Your task to perform on an android device: open app "Microsoft Authenticator" Image 0: 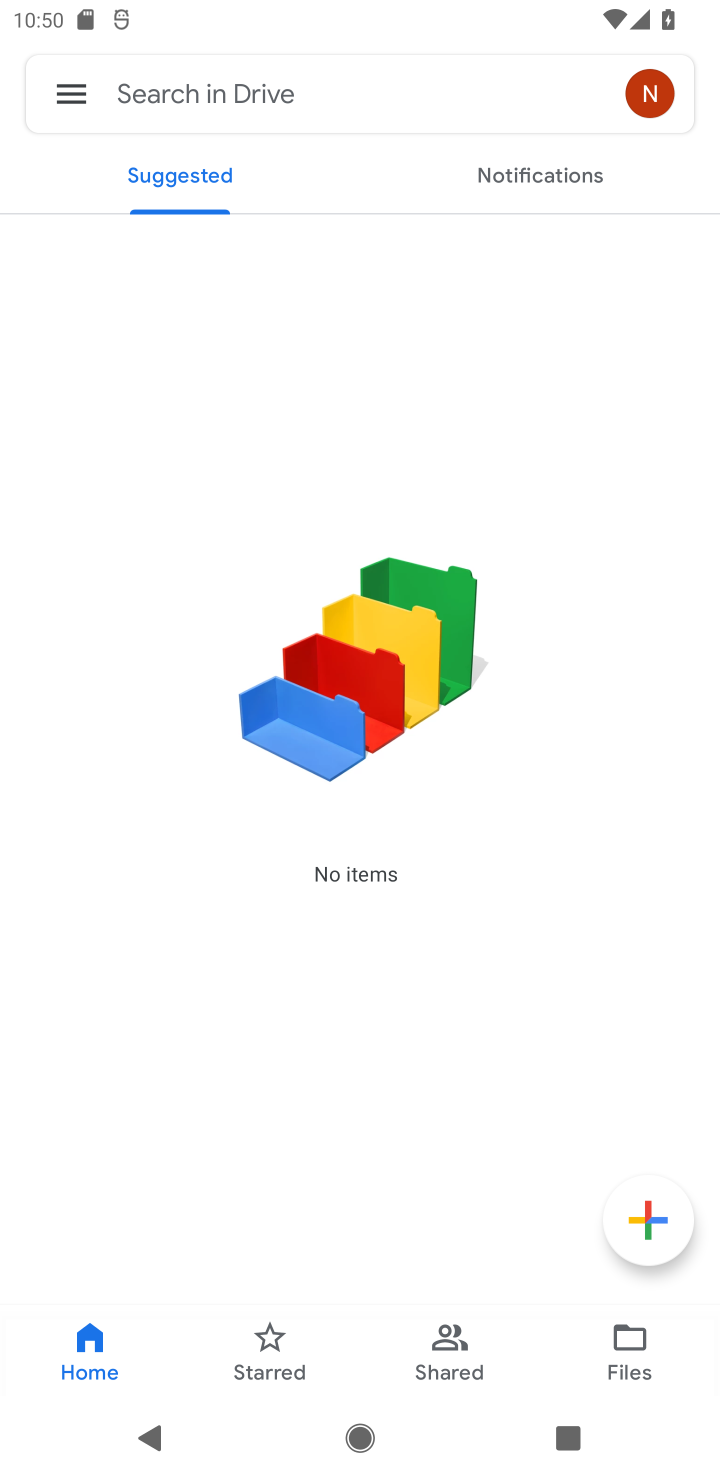
Step 0: press home button
Your task to perform on an android device: open app "Microsoft Authenticator" Image 1: 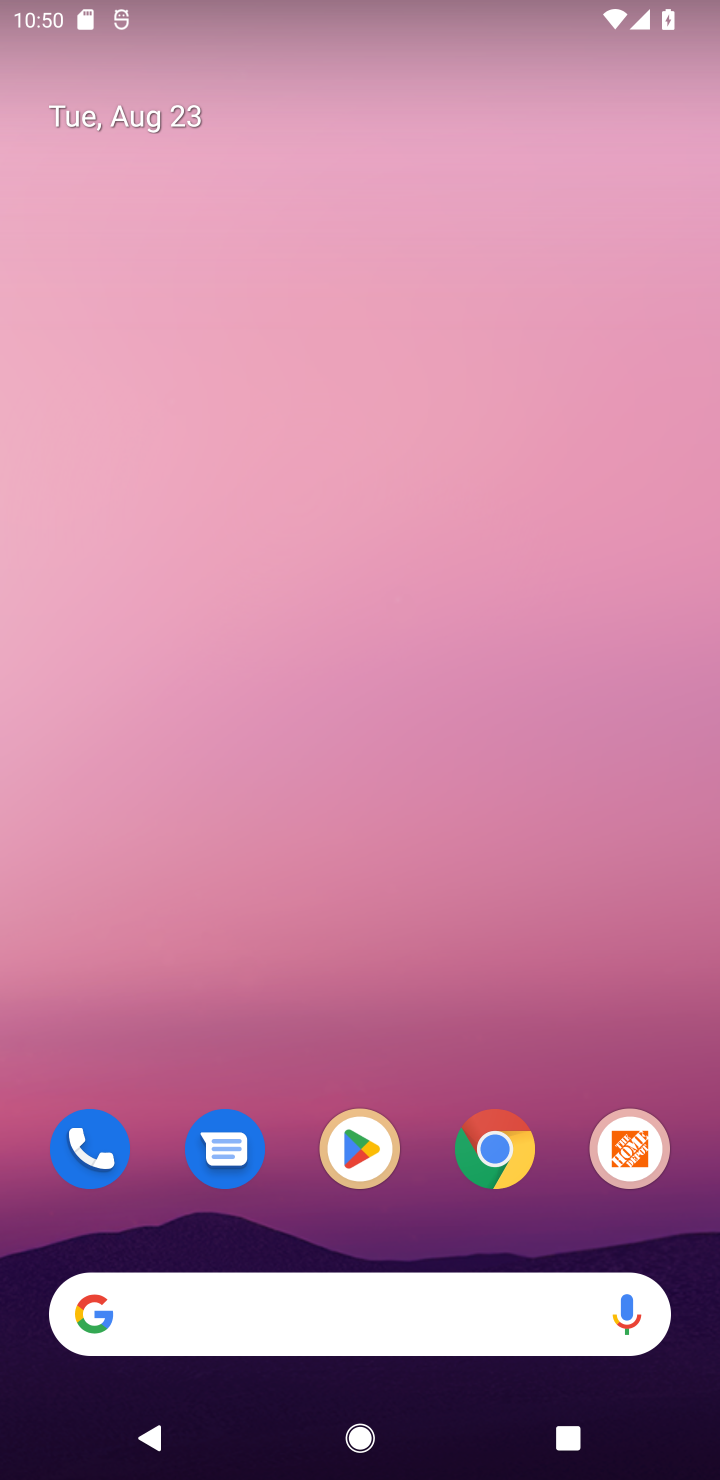
Step 1: click (351, 1139)
Your task to perform on an android device: open app "Microsoft Authenticator" Image 2: 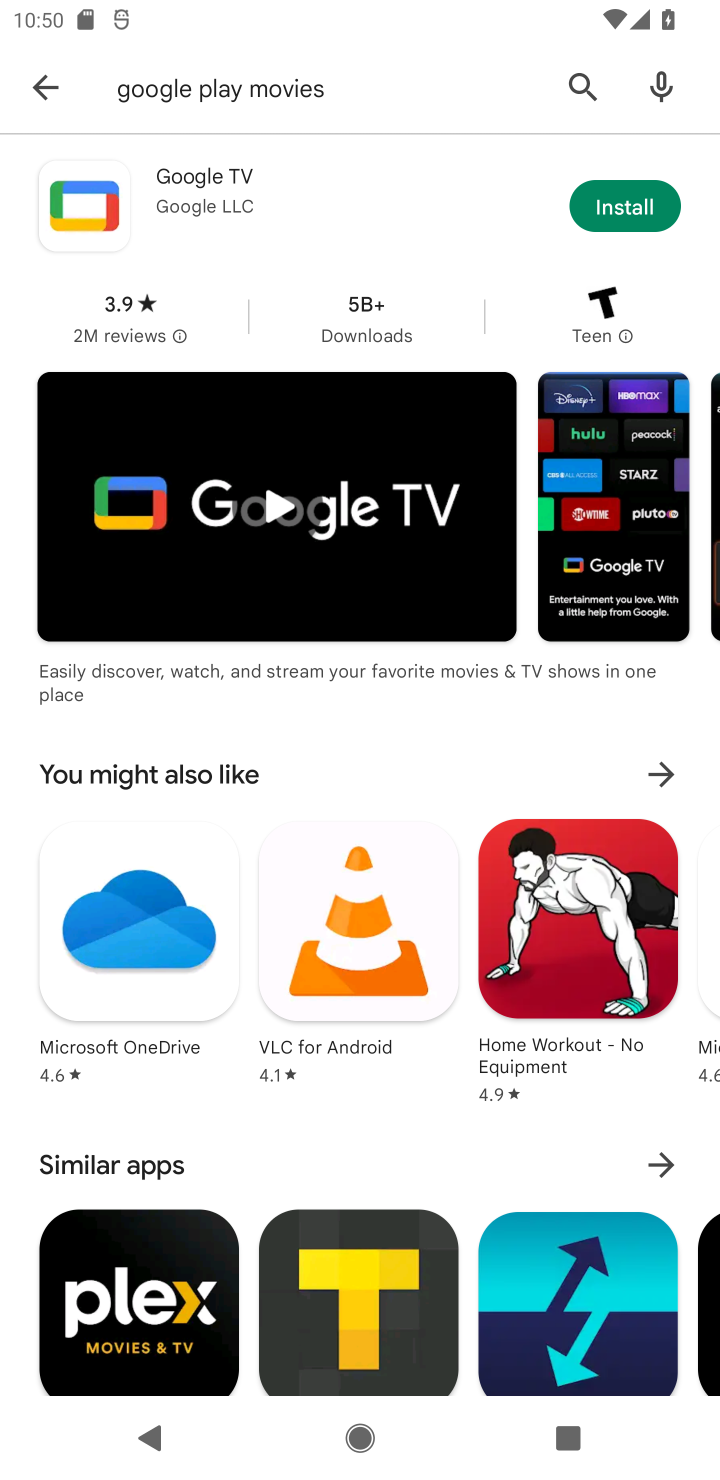
Step 2: click (577, 99)
Your task to perform on an android device: open app "Microsoft Authenticator" Image 3: 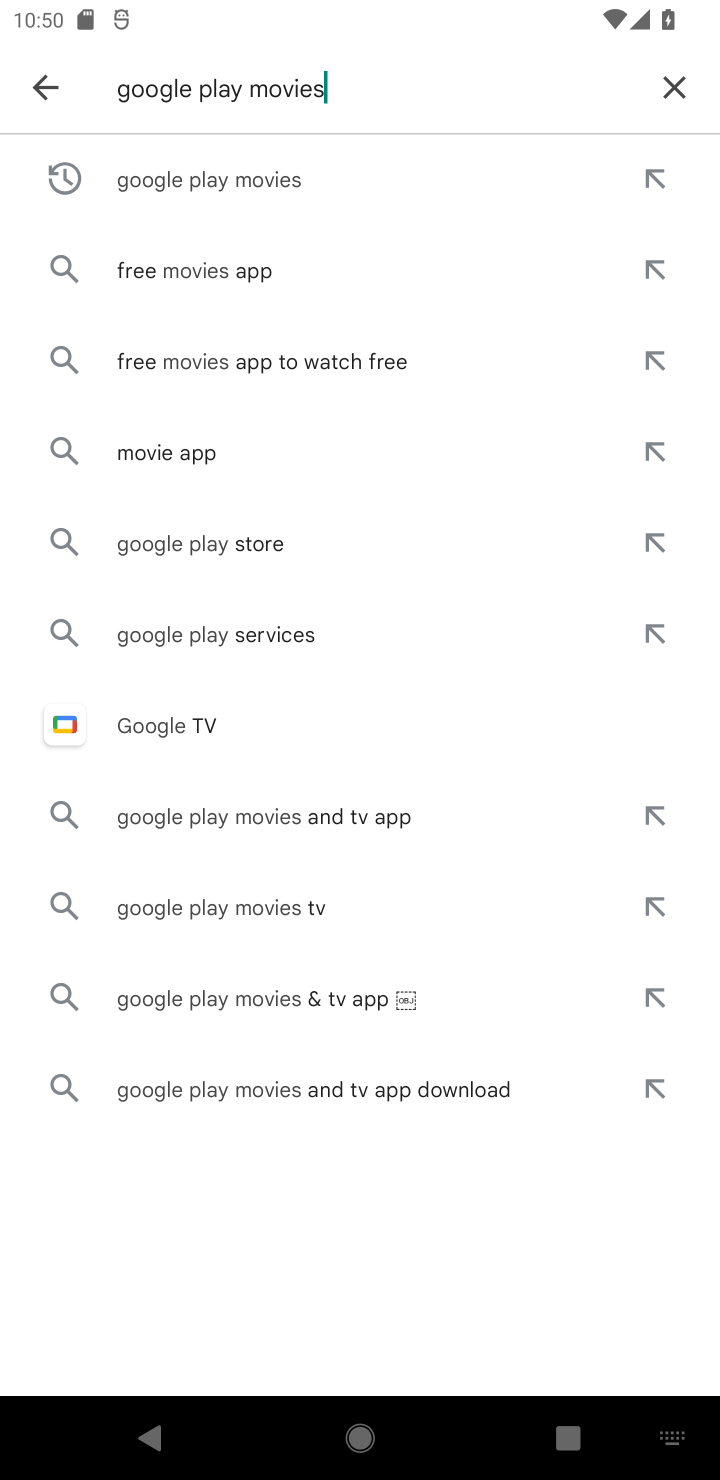
Step 3: click (698, 90)
Your task to perform on an android device: open app "Microsoft Authenticator" Image 4: 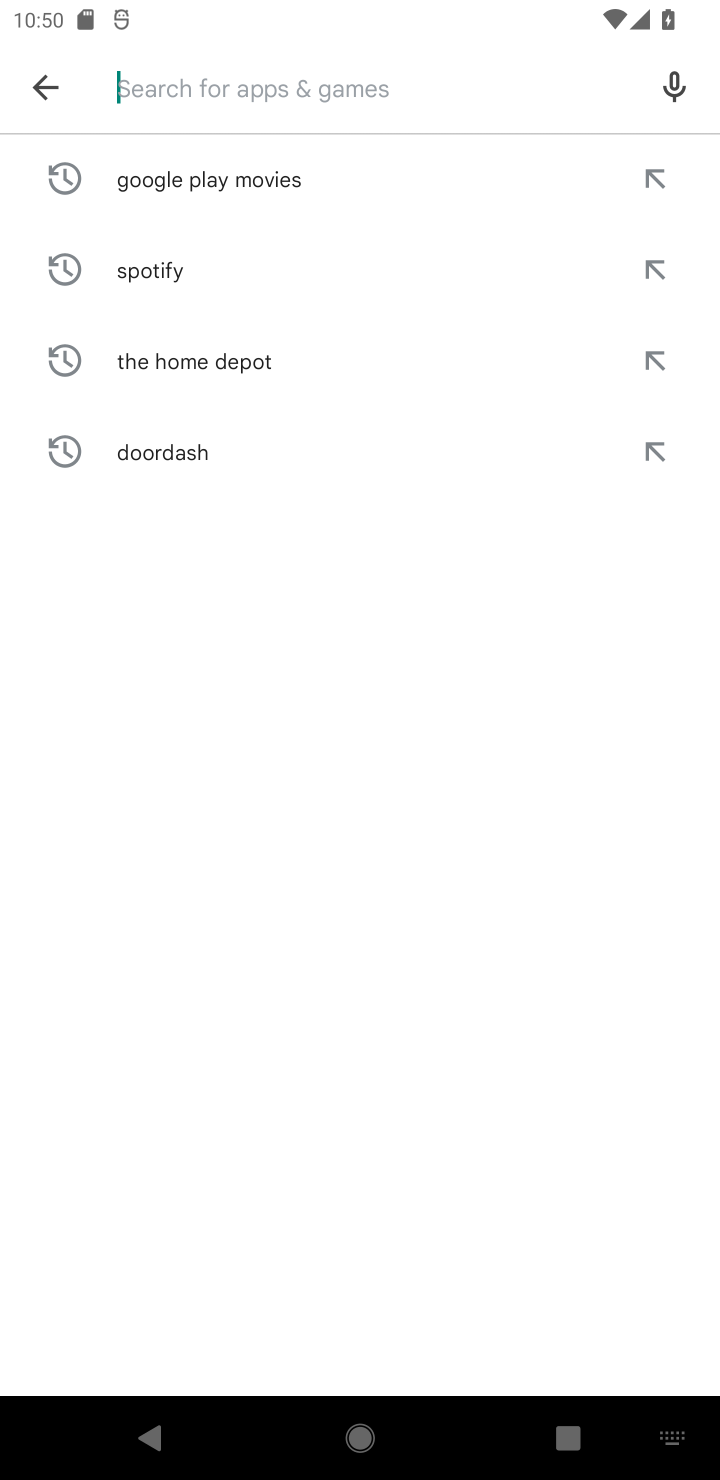
Step 4: type "authenticator"
Your task to perform on an android device: open app "Microsoft Authenticator" Image 5: 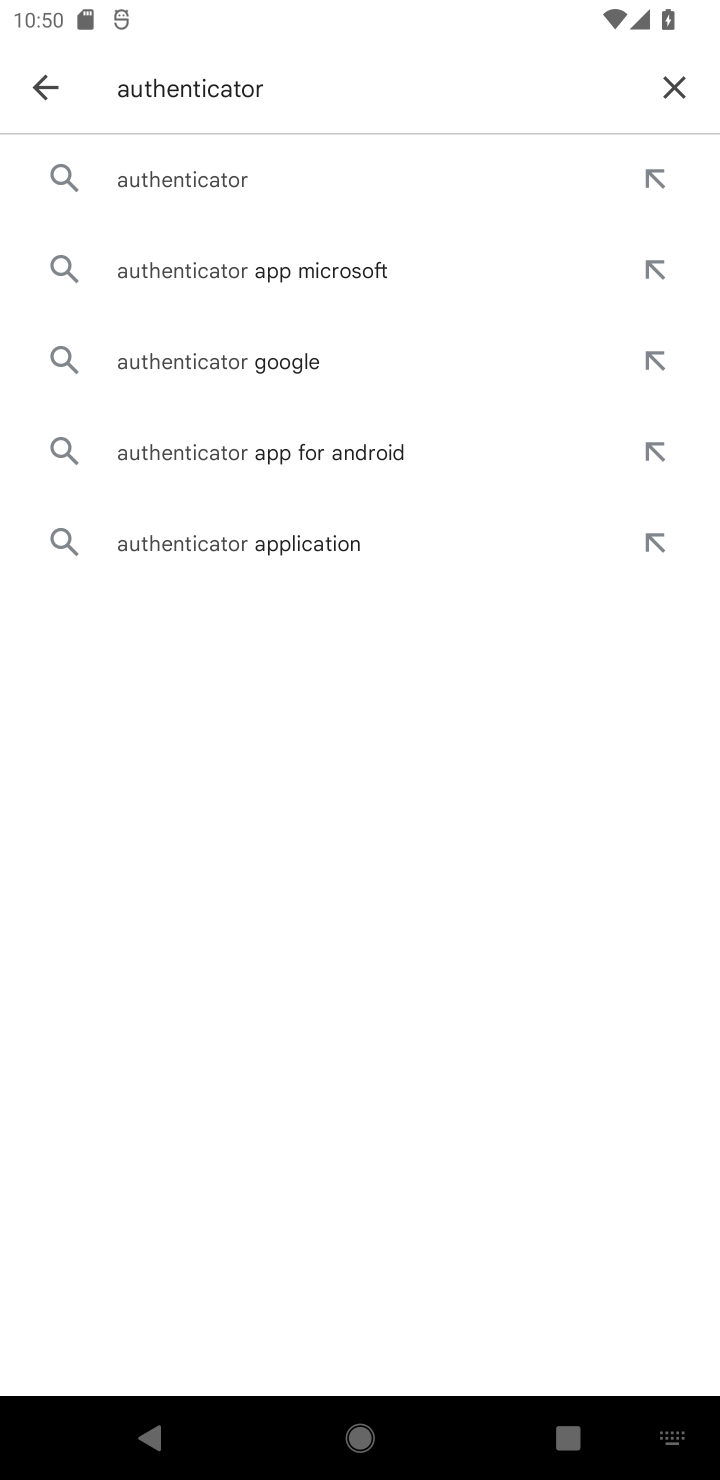
Step 5: click (315, 200)
Your task to perform on an android device: open app "Microsoft Authenticator" Image 6: 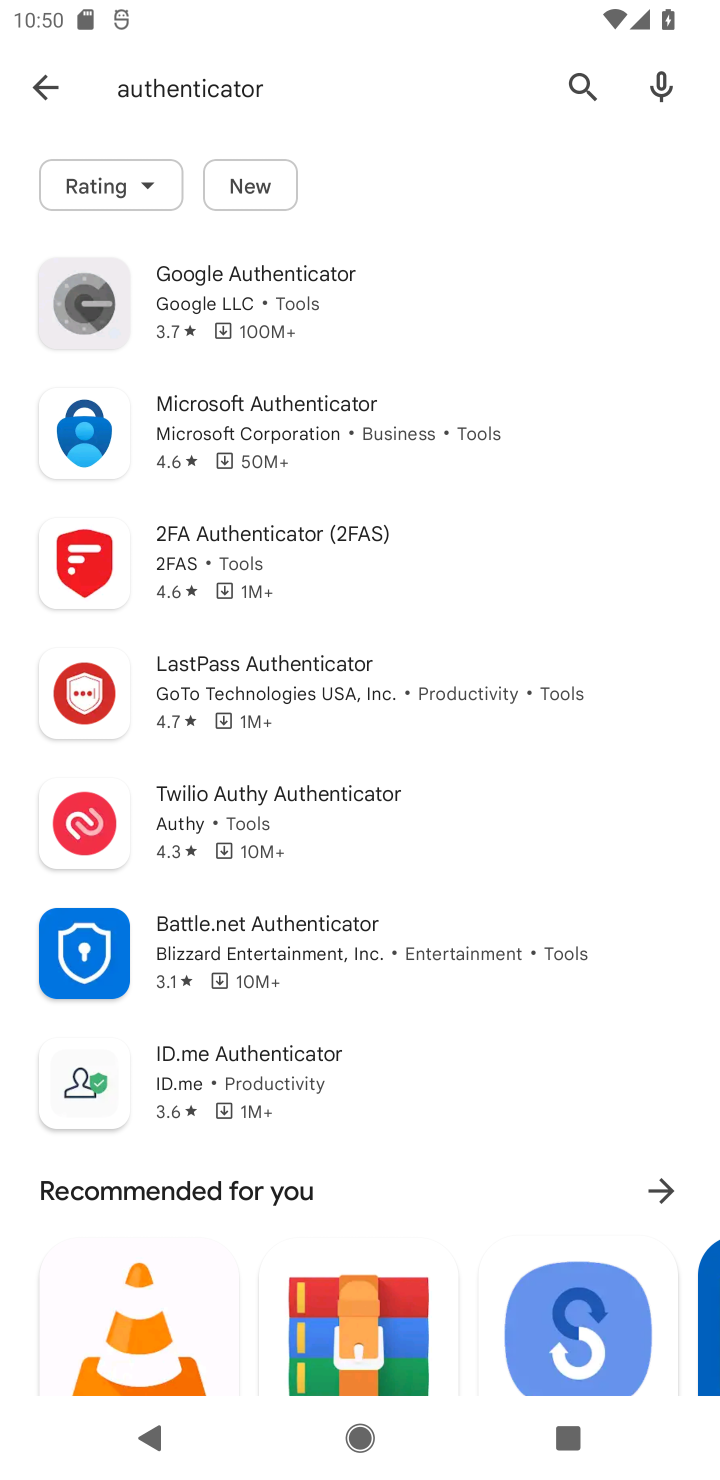
Step 6: click (301, 462)
Your task to perform on an android device: open app "Microsoft Authenticator" Image 7: 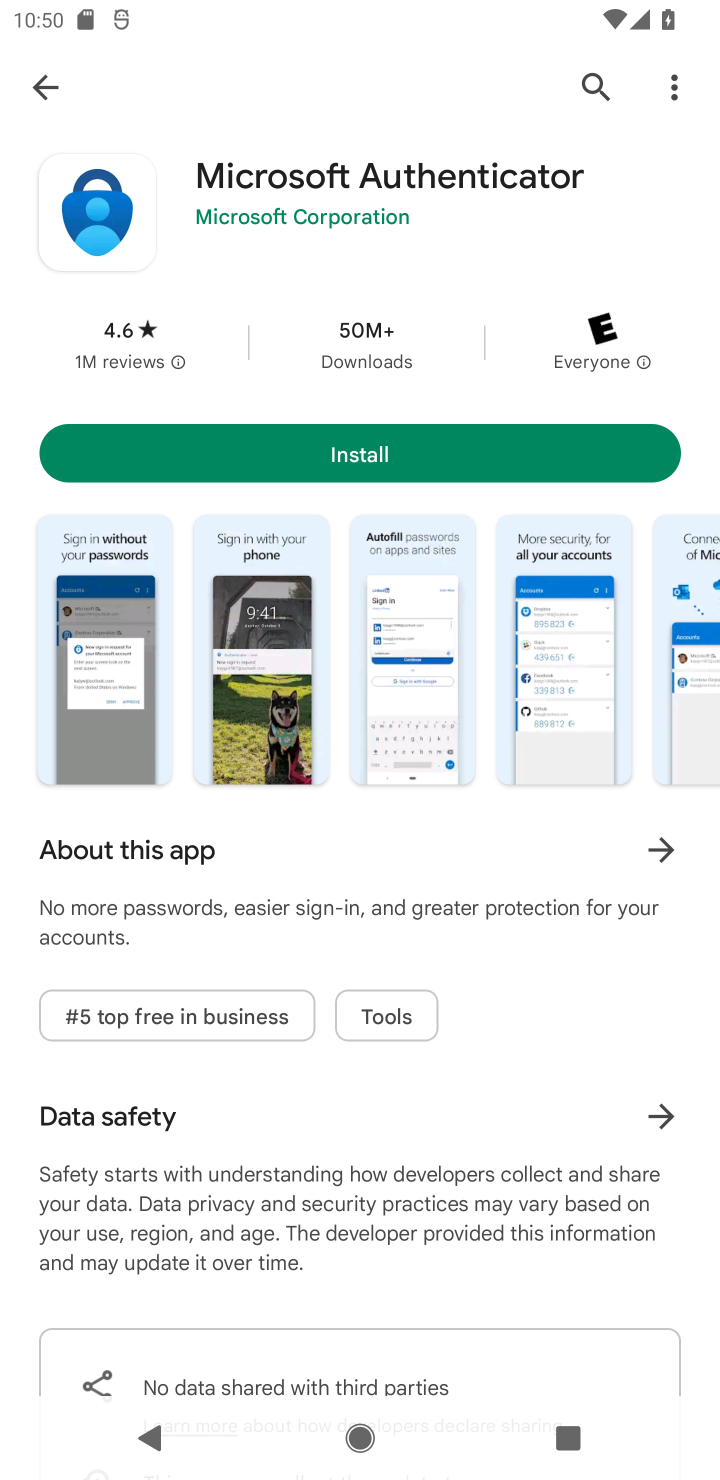
Step 7: click (462, 442)
Your task to perform on an android device: open app "Microsoft Authenticator" Image 8: 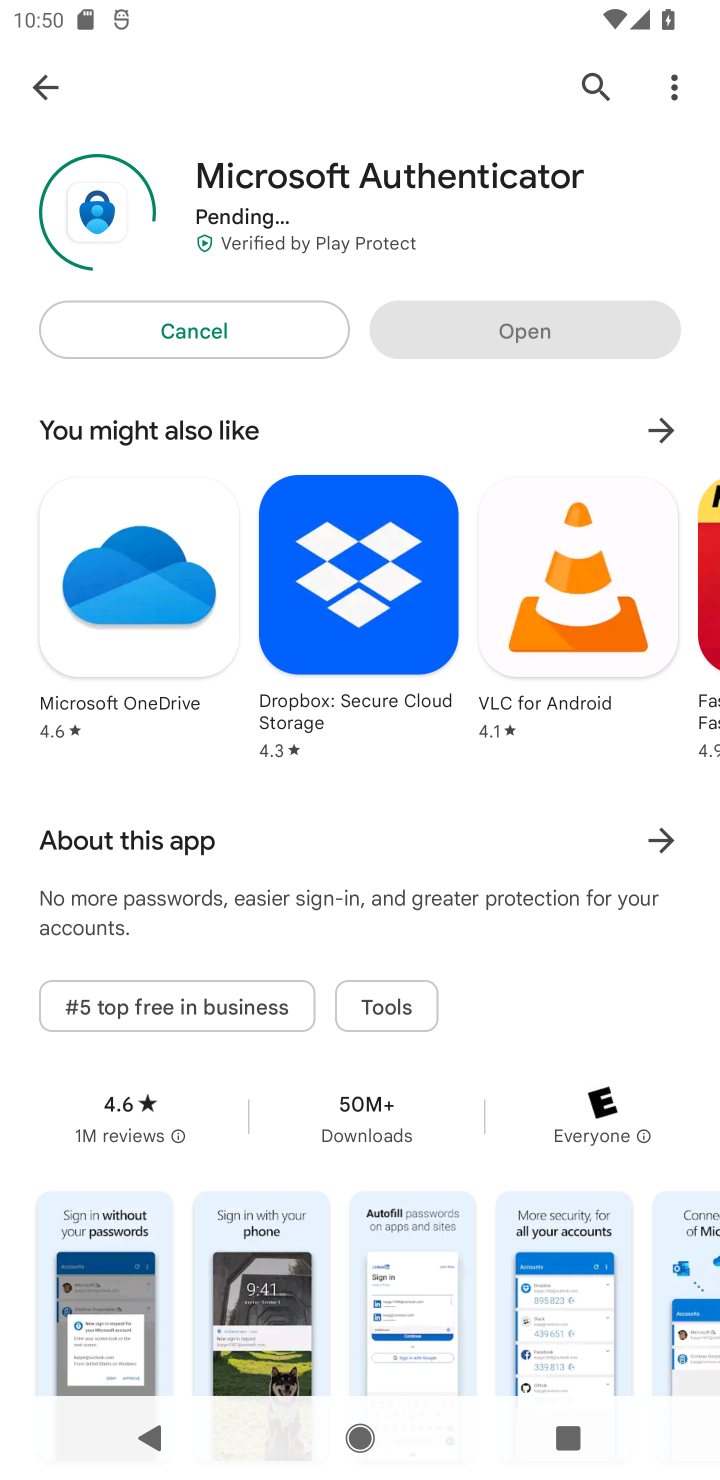
Step 8: task complete